Your task to perform on an android device: Open Amazon Image 0: 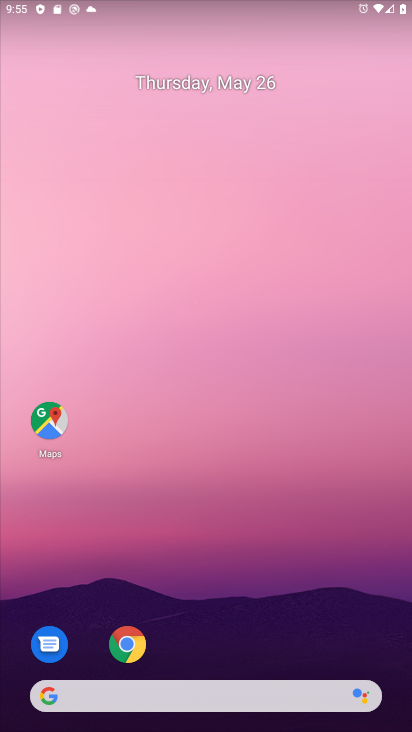
Step 0: click (119, 634)
Your task to perform on an android device: Open Amazon Image 1: 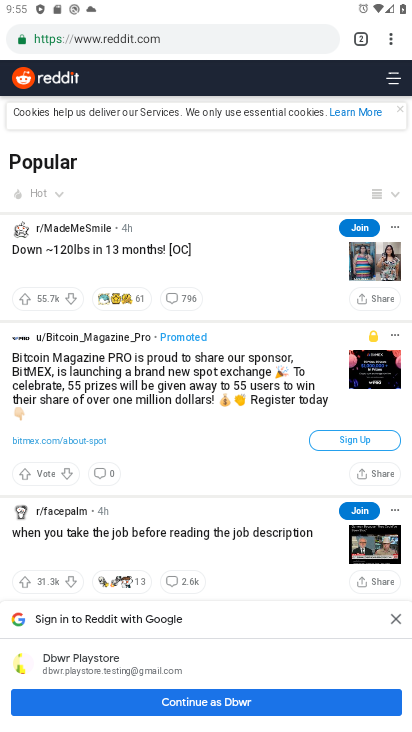
Step 1: click (353, 41)
Your task to perform on an android device: Open Amazon Image 2: 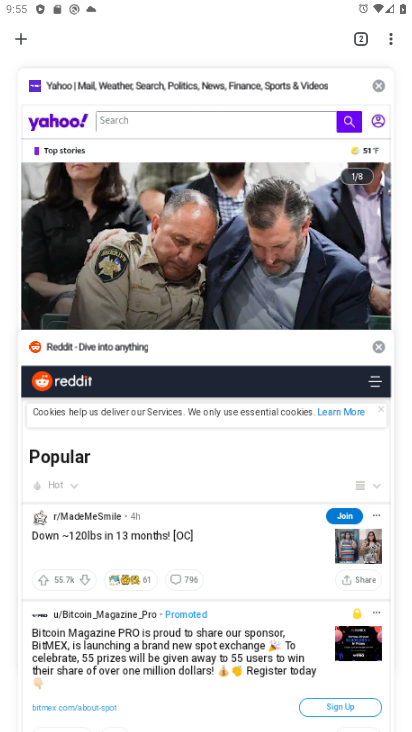
Step 2: click (20, 38)
Your task to perform on an android device: Open Amazon Image 3: 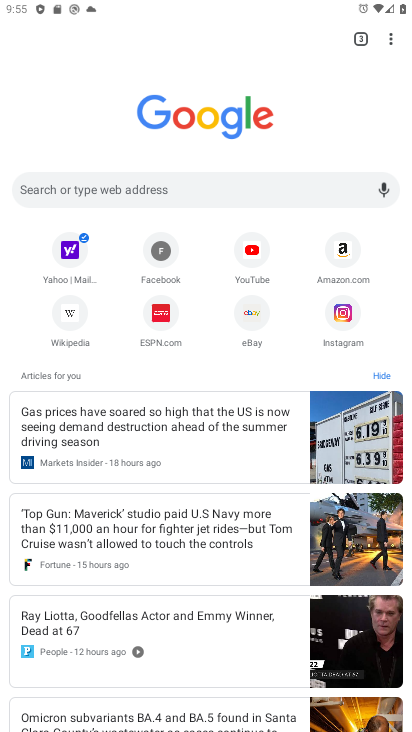
Step 3: click (325, 247)
Your task to perform on an android device: Open Amazon Image 4: 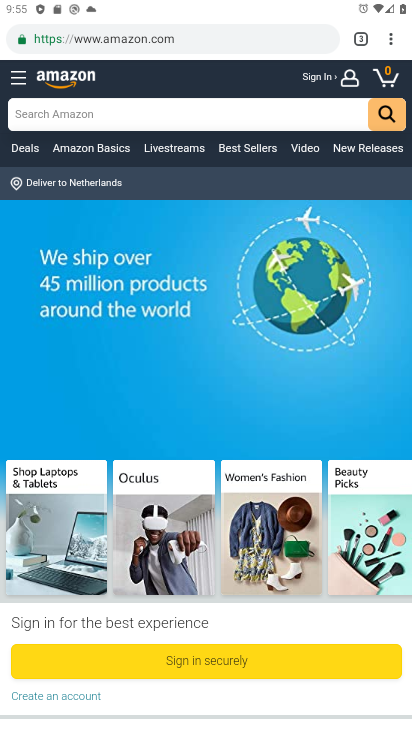
Step 4: task complete